Your task to perform on an android device: visit the assistant section in the google photos Image 0: 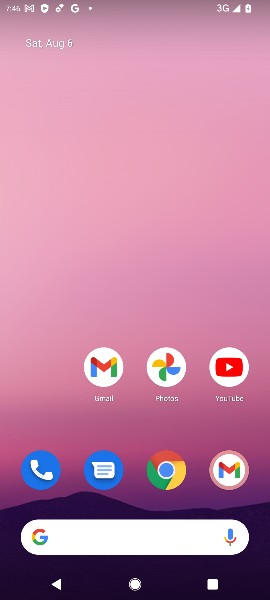
Step 0: drag from (160, 478) to (168, 37)
Your task to perform on an android device: visit the assistant section in the google photos Image 1: 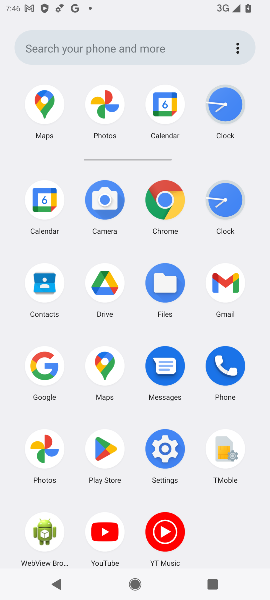
Step 1: click (50, 448)
Your task to perform on an android device: visit the assistant section in the google photos Image 2: 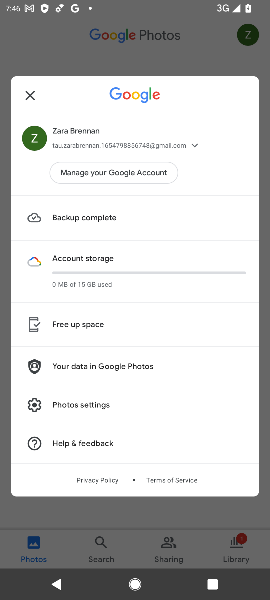
Step 2: click (30, 98)
Your task to perform on an android device: visit the assistant section in the google photos Image 3: 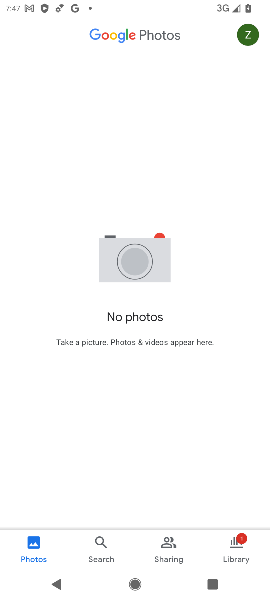
Step 3: task complete